Your task to perform on an android device: Go to settings Image 0: 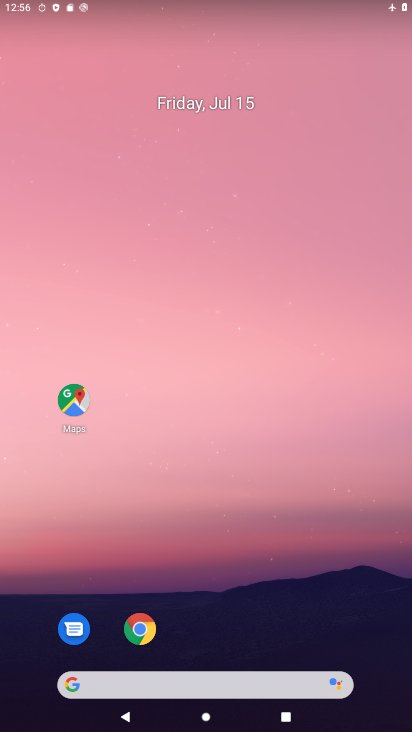
Step 0: drag from (197, 604) to (198, 240)
Your task to perform on an android device: Go to settings Image 1: 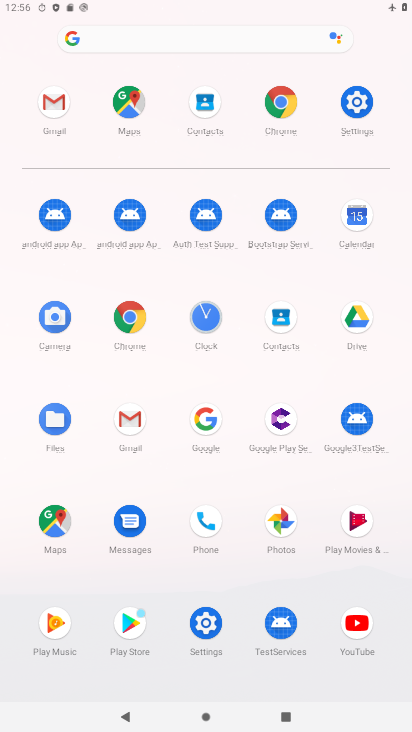
Step 1: click (210, 638)
Your task to perform on an android device: Go to settings Image 2: 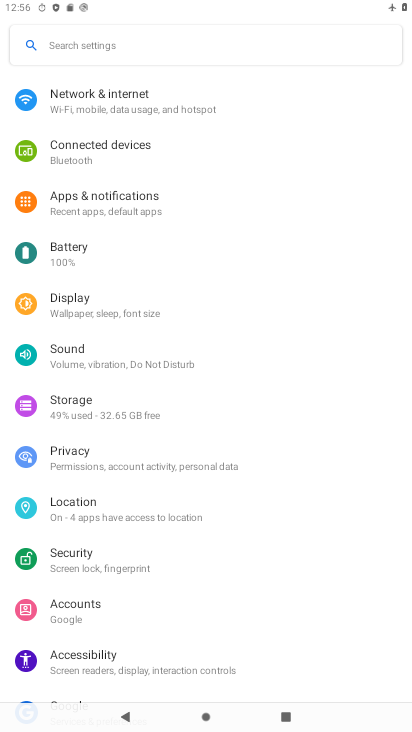
Step 2: task complete